Your task to perform on an android device: Add alienware aurora to the cart on ebay Image 0: 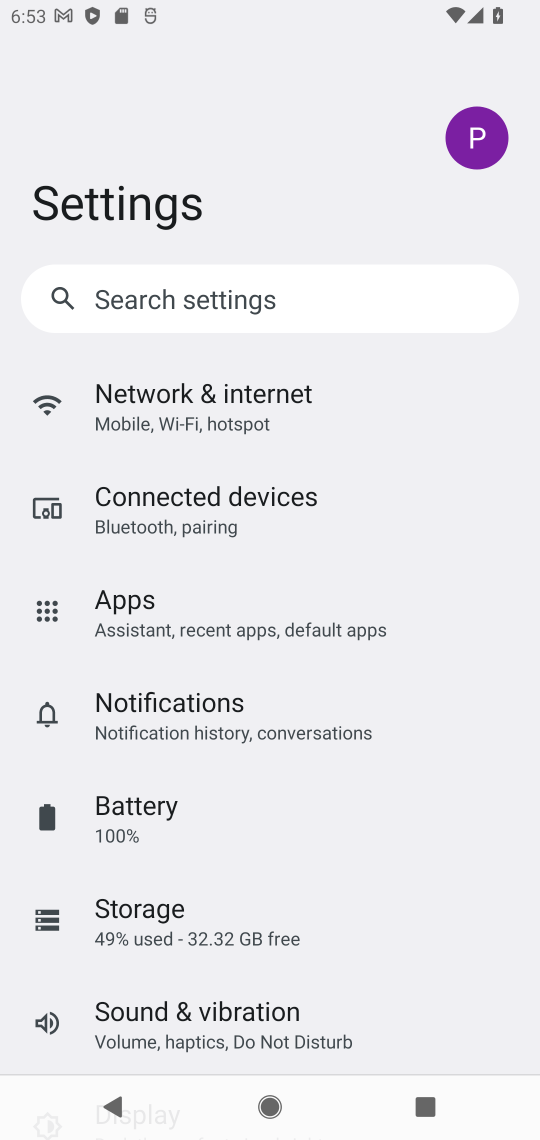
Step 0: press home button
Your task to perform on an android device: Add alienware aurora to the cart on ebay Image 1: 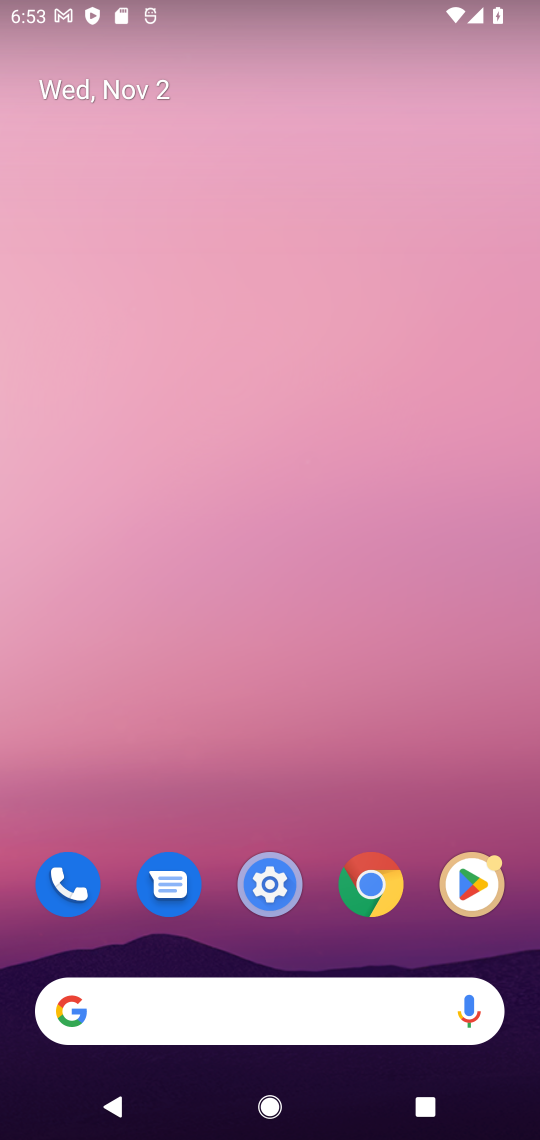
Step 1: click (211, 1008)
Your task to perform on an android device: Add alienware aurora to the cart on ebay Image 2: 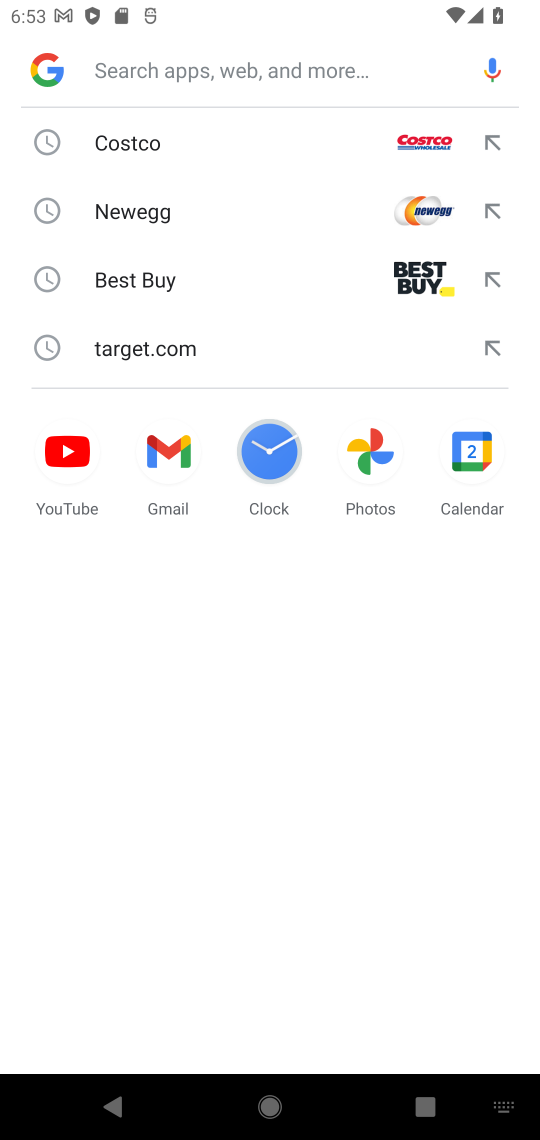
Step 2: type "ebay"
Your task to perform on an android device: Add alienware aurora to the cart on ebay Image 3: 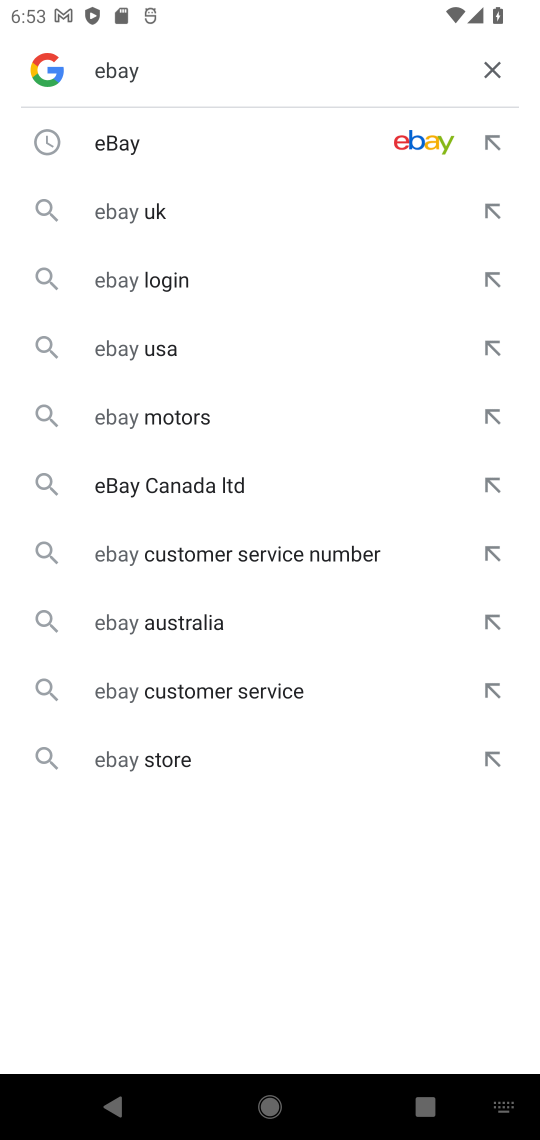
Step 3: click (202, 141)
Your task to perform on an android device: Add alienware aurora to the cart on ebay Image 4: 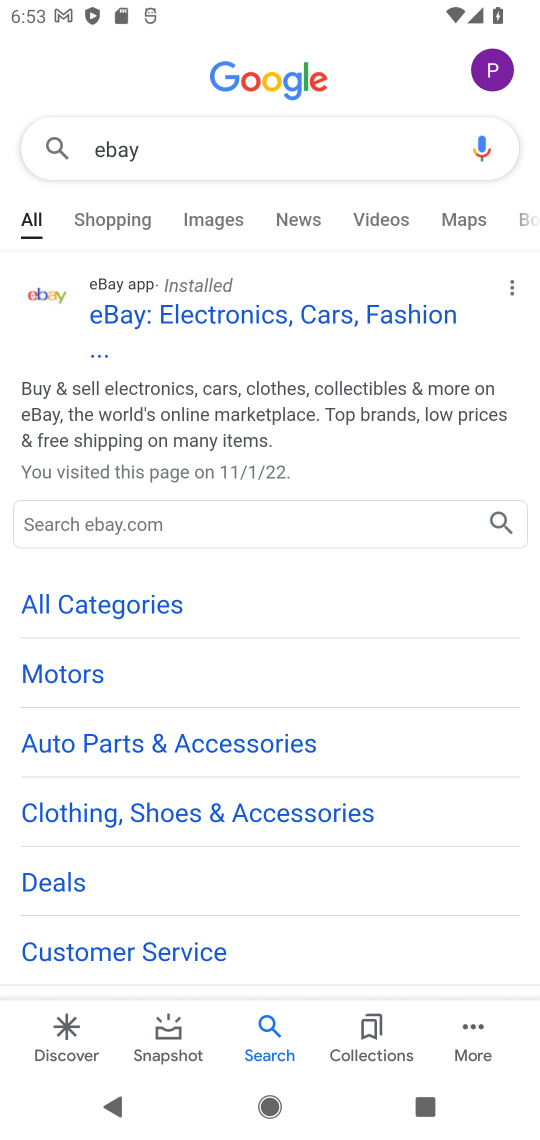
Step 4: click (207, 321)
Your task to perform on an android device: Add alienware aurora to the cart on ebay Image 5: 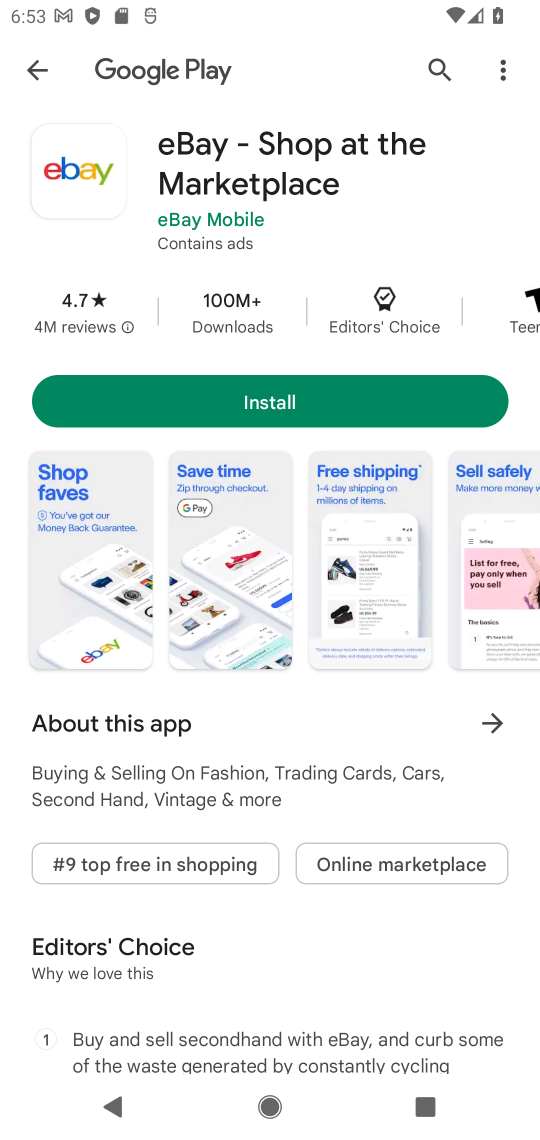
Step 5: press home button
Your task to perform on an android device: Add alienware aurora to the cart on ebay Image 6: 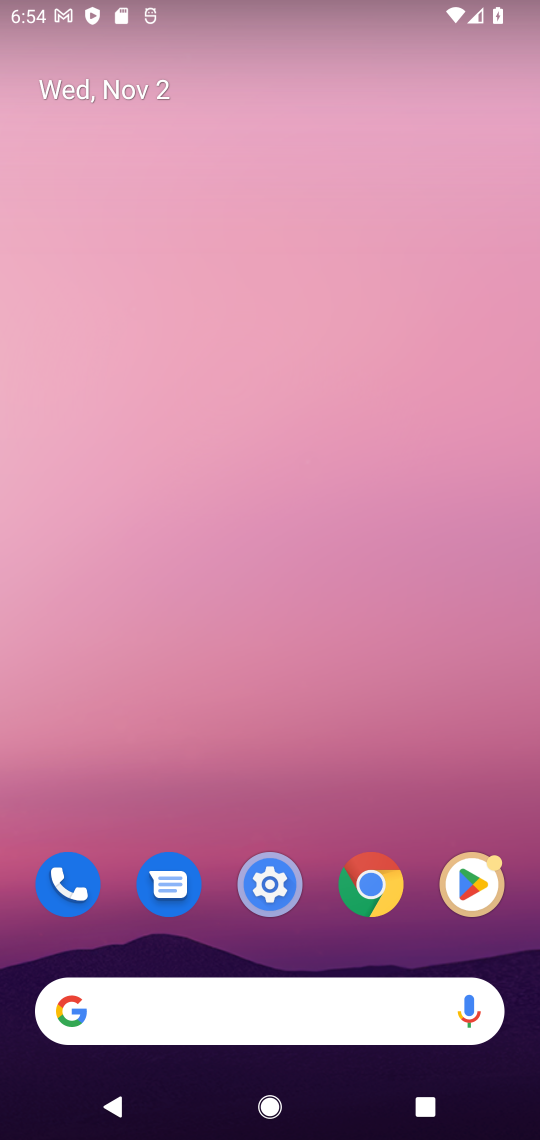
Step 6: click (365, 992)
Your task to perform on an android device: Add alienware aurora to the cart on ebay Image 7: 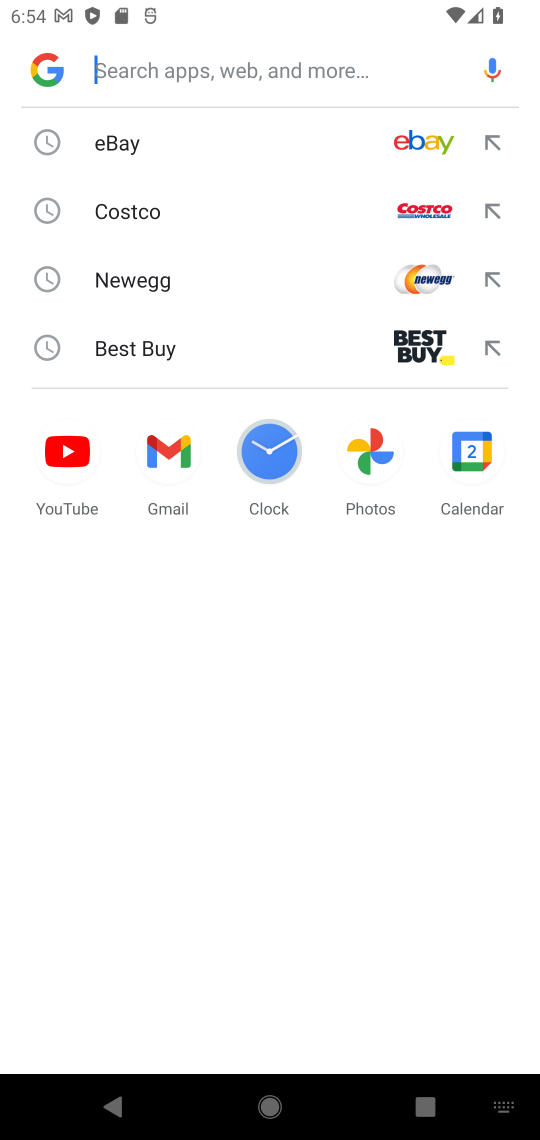
Step 7: click (491, 147)
Your task to perform on an android device: Add alienware aurora to the cart on ebay Image 8: 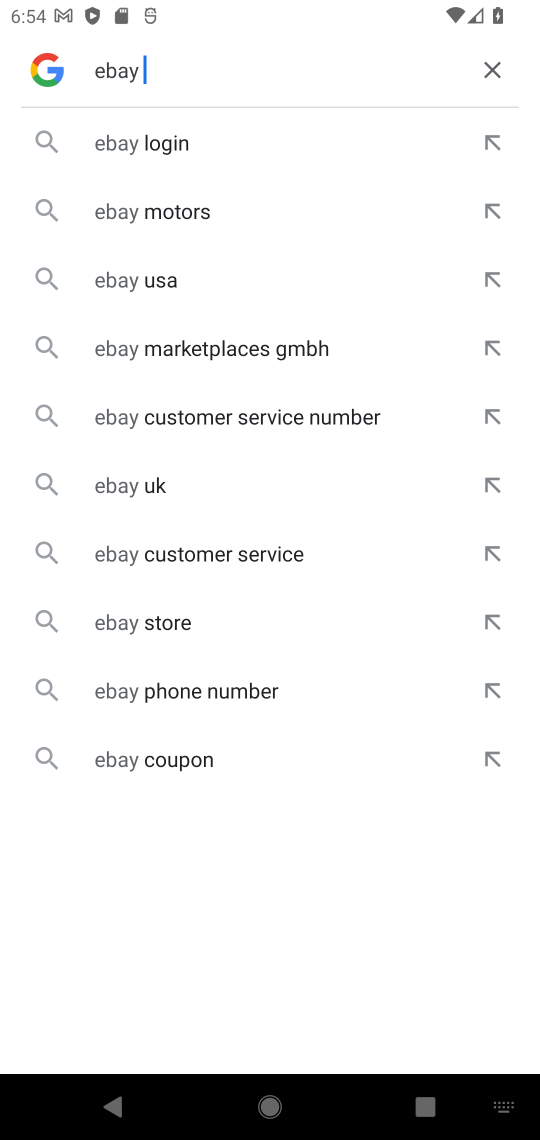
Step 8: click (161, 170)
Your task to perform on an android device: Add alienware aurora to the cart on ebay Image 9: 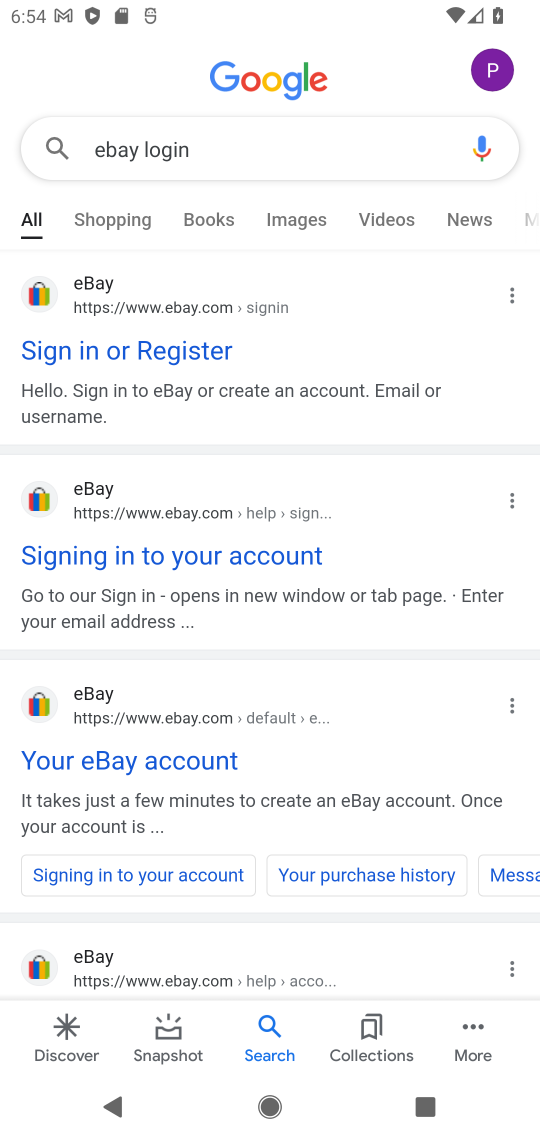
Step 9: click (159, 785)
Your task to perform on an android device: Add alienware aurora to the cart on ebay Image 10: 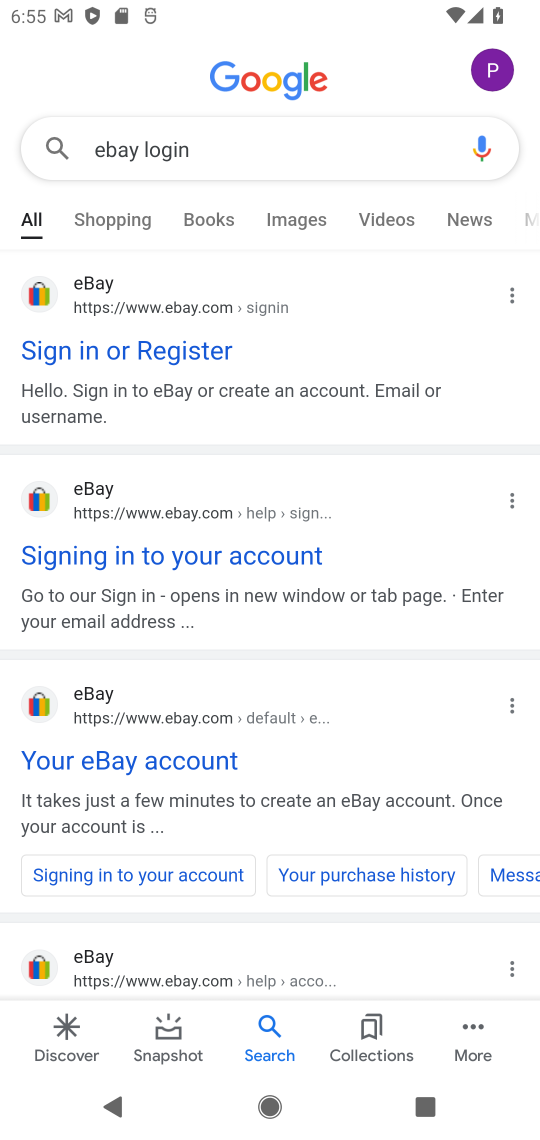
Step 10: click (85, 779)
Your task to perform on an android device: Add alienware aurora to the cart on ebay Image 11: 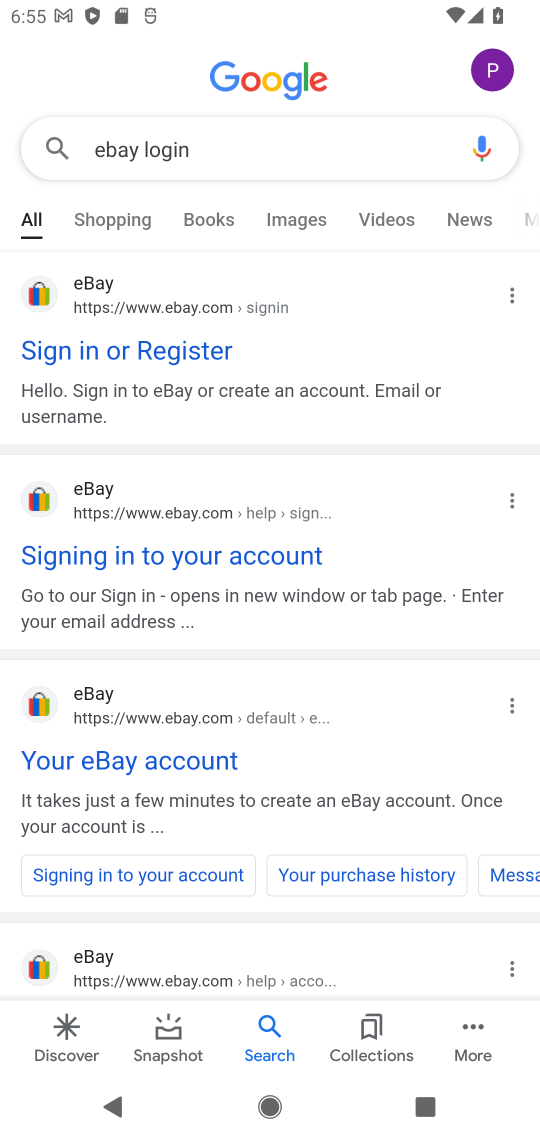
Step 11: click (112, 350)
Your task to perform on an android device: Add alienware aurora to the cart on ebay Image 12: 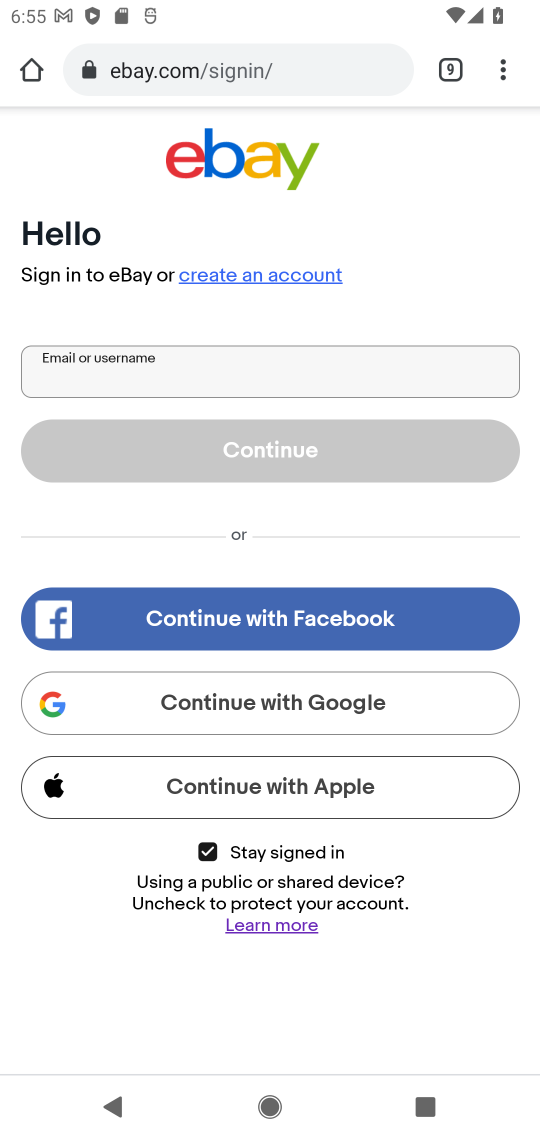
Step 12: task complete